Your task to perform on an android device: remove spam from my inbox in the gmail app Image 0: 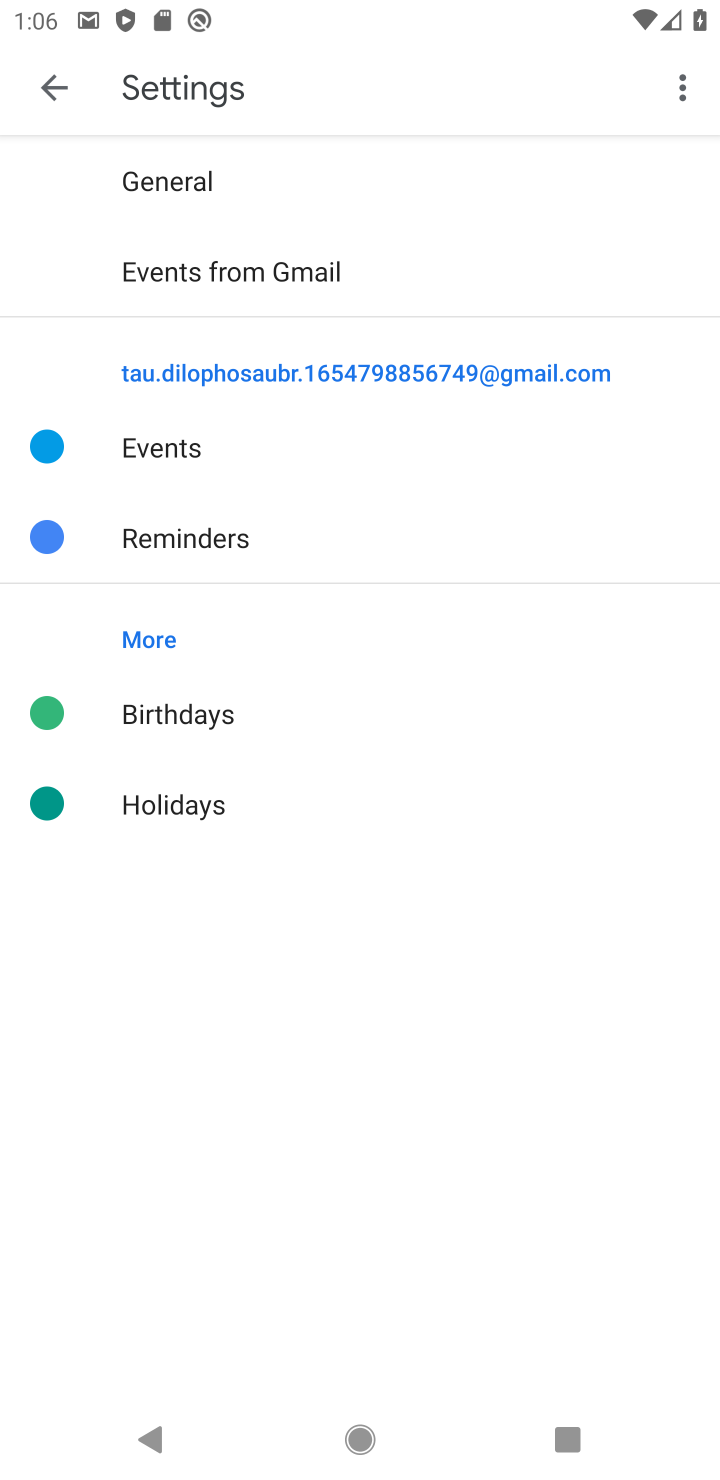
Step 0: press home button
Your task to perform on an android device: remove spam from my inbox in the gmail app Image 1: 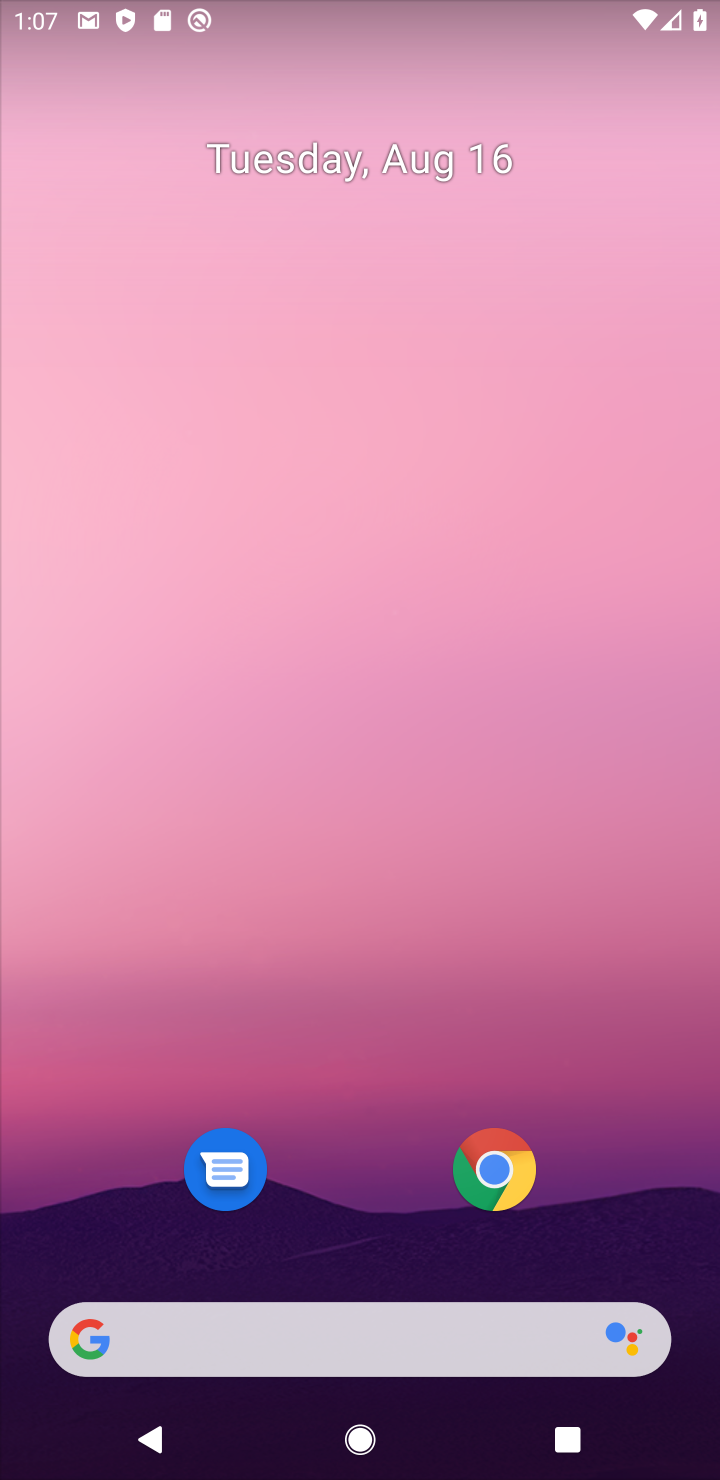
Step 1: drag from (48, 1398) to (622, 450)
Your task to perform on an android device: remove spam from my inbox in the gmail app Image 2: 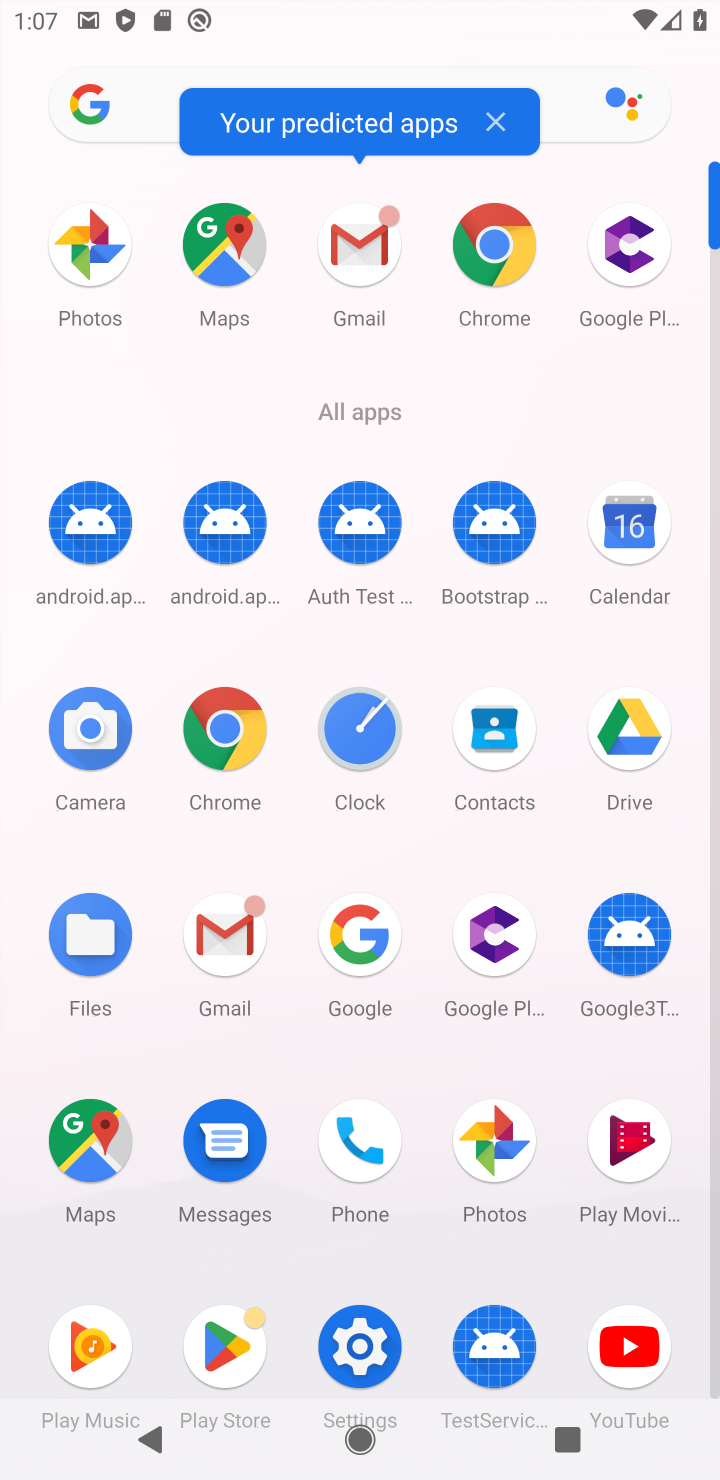
Step 2: click (358, 260)
Your task to perform on an android device: remove spam from my inbox in the gmail app Image 3: 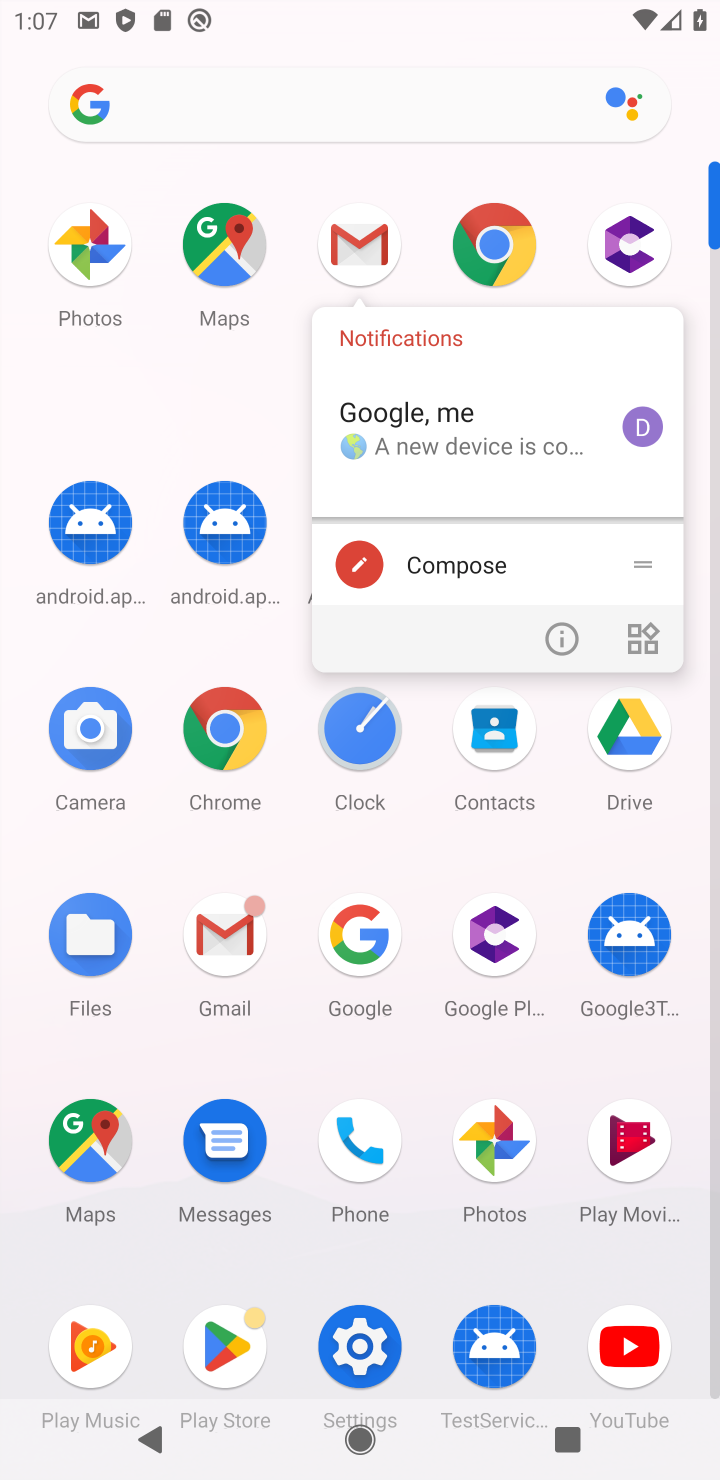
Step 3: click (345, 221)
Your task to perform on an android device: remove spam from my inbox in the gmail app Image 4: 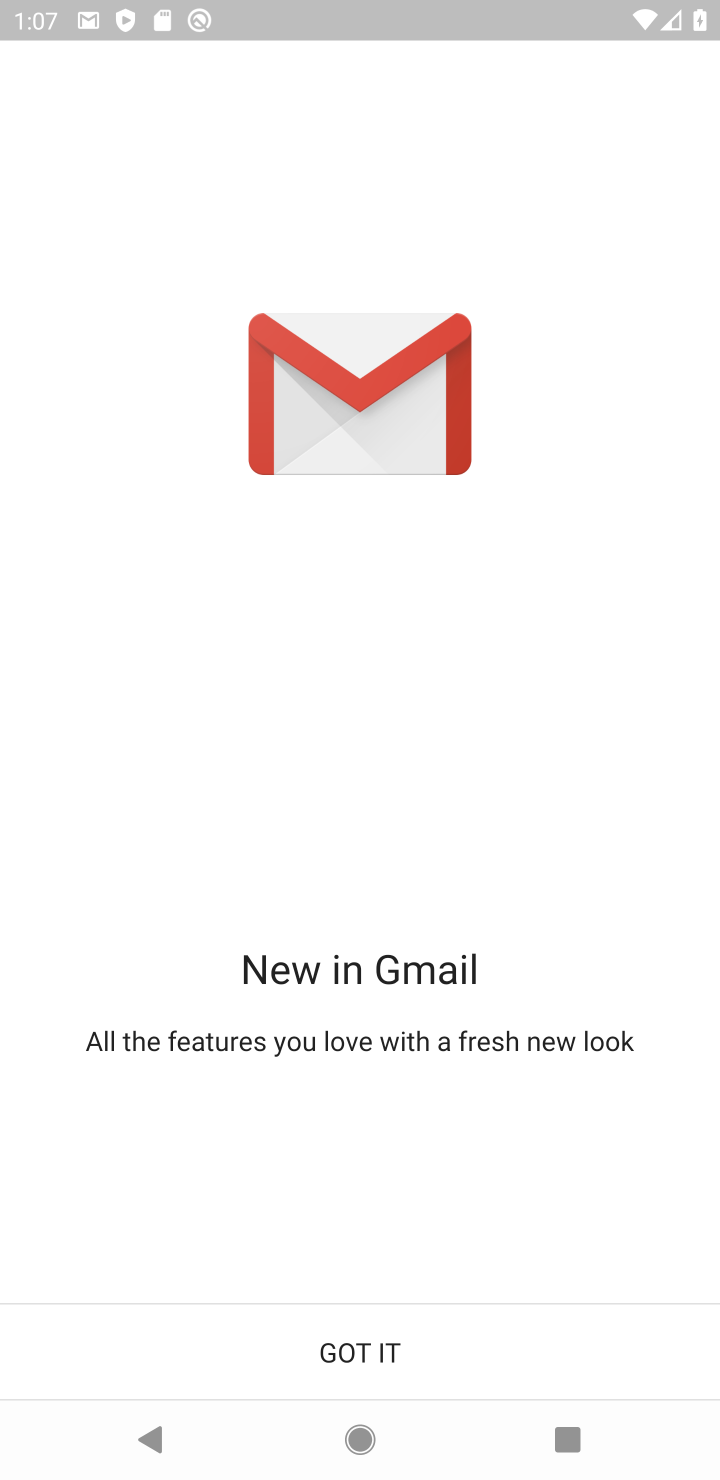
Step 4: click (379, 1347)
Your task to perform on an android device: remove spam from my inbox in the gmail app Image 5: 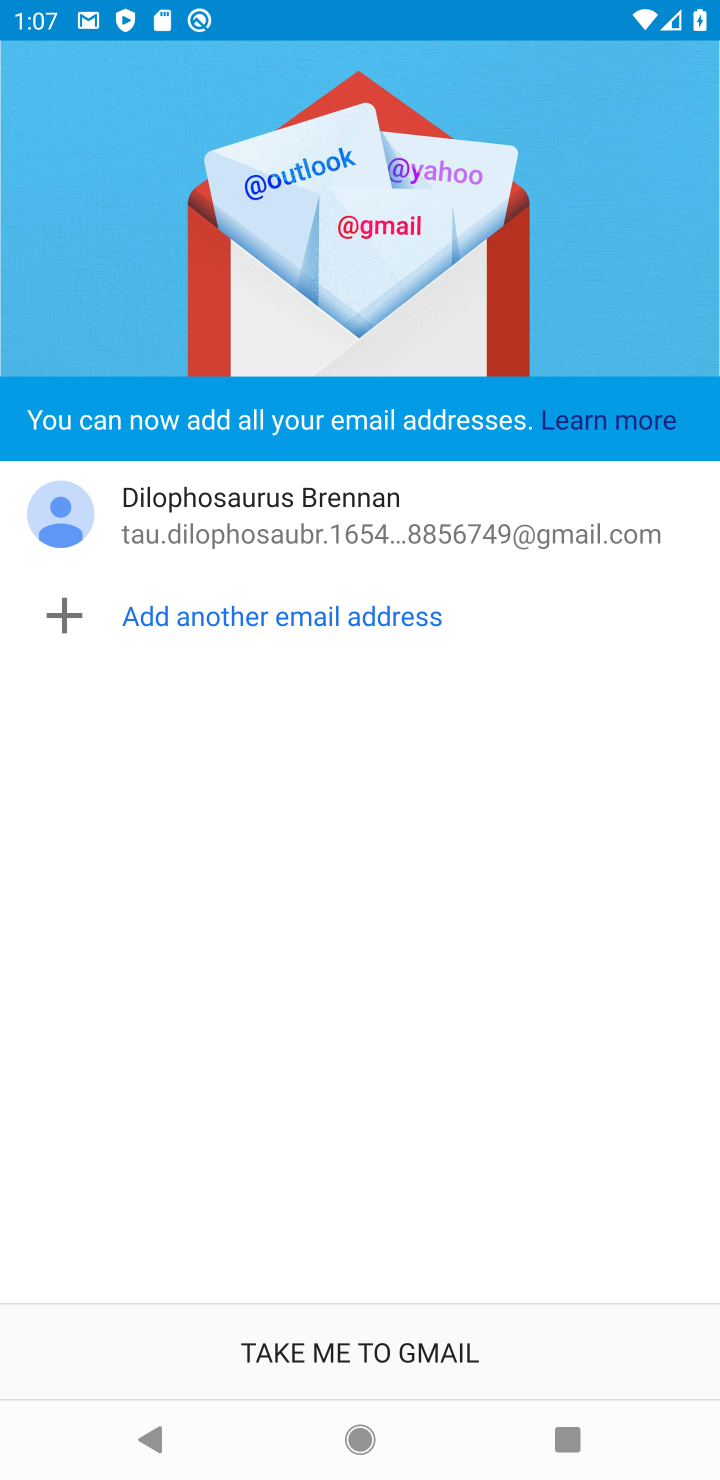
Step 5: click (323, 1341)
Your task to perform on an android device: remove spam from my inbox in the gmail app Image 6: 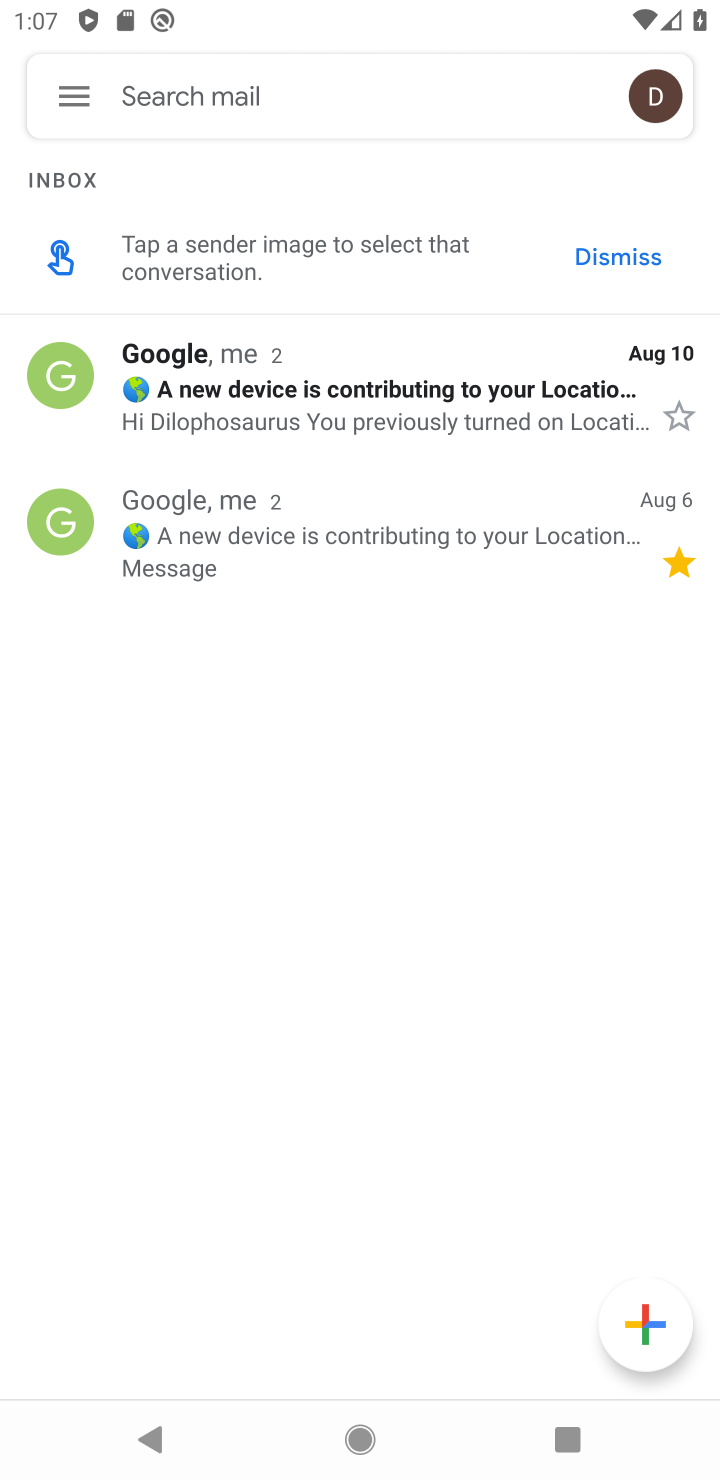
Step 6: click (80, 89)
Your task to perform on an android device: remove spam from my inbox in the gmail app Image 7: 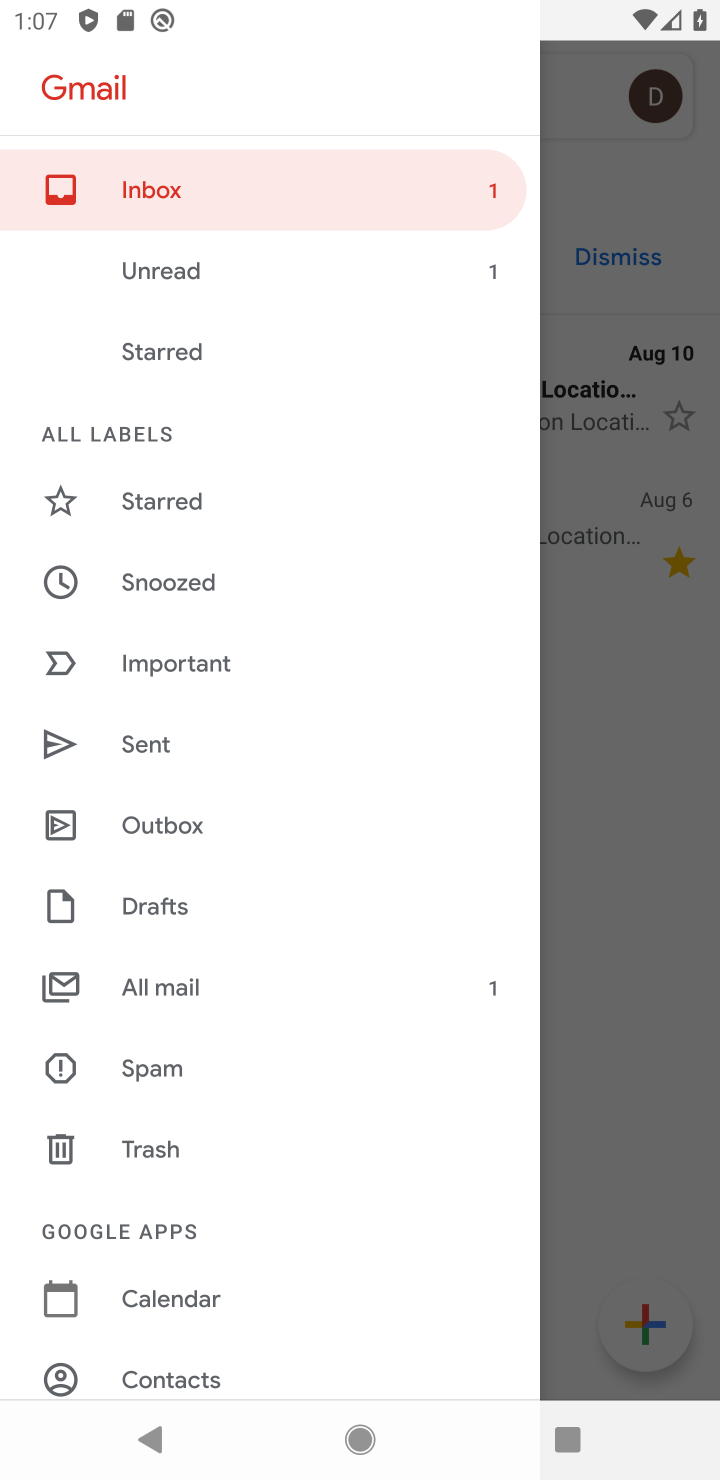
Step 7: click (157, 1077)
Your task to perform on an android device: remove spam from my inbox in the gmail app Image 8: 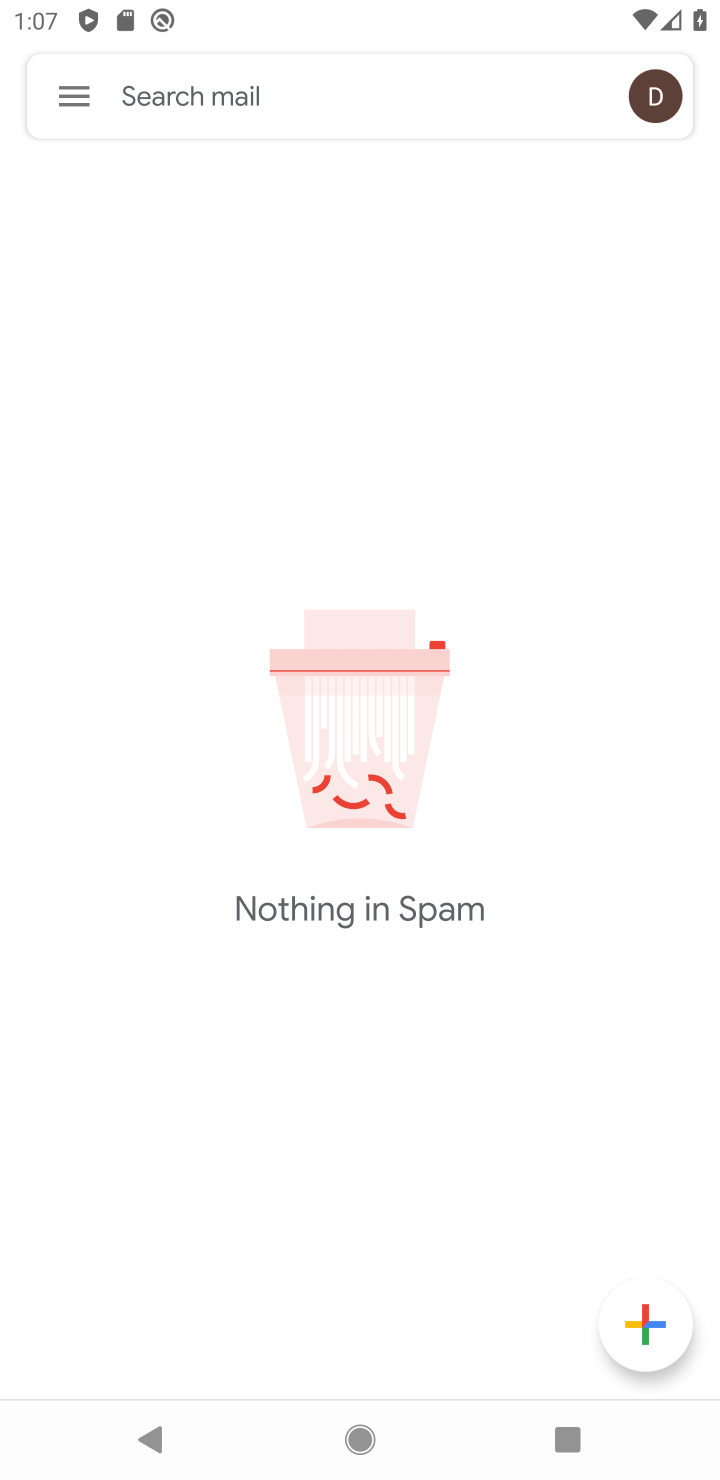
Step 8: task complete